Your task to perform on an android device: delete a single message in the gmail app Image 0: 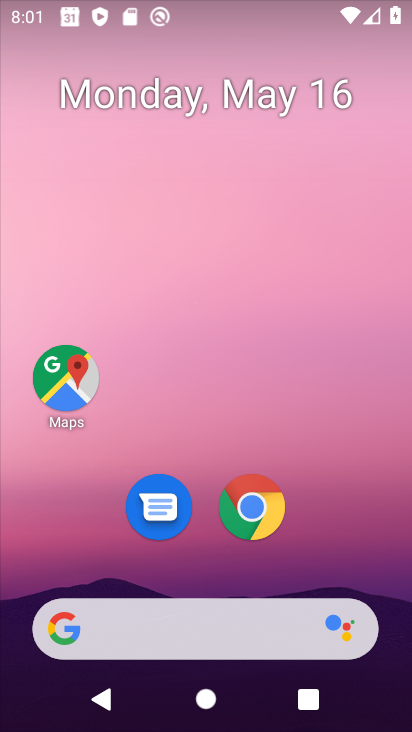
Step 0: drag from (324, 564) to (331, 214)
Your task to perform on an android device: delete a single message in the gmail app Image 1: 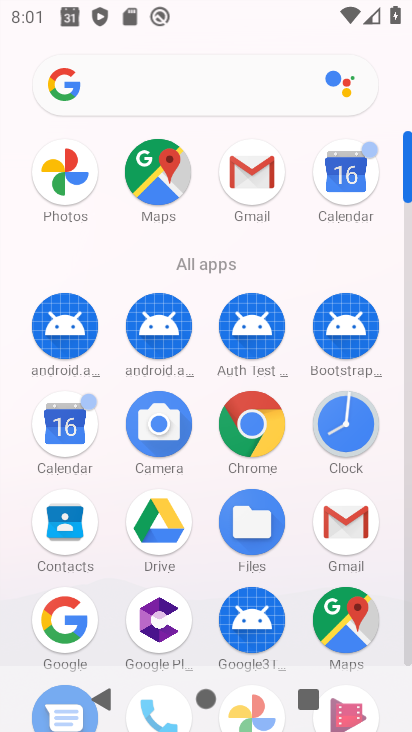
Step 1: click (257, 183)
Your task to perform on an android device: delete a single message in the gmail app Image 2: 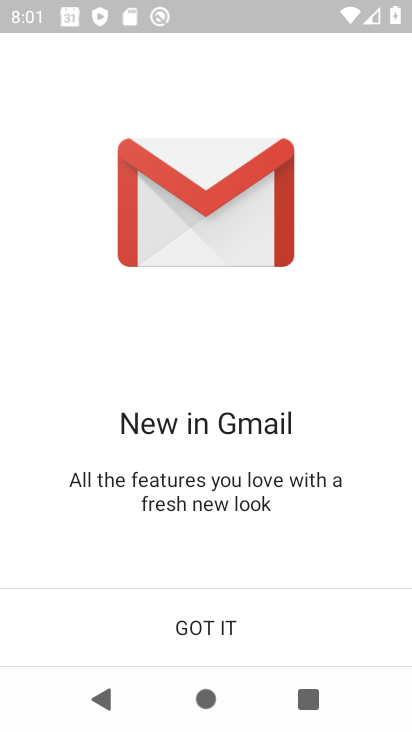
Step 2: click (201, 627)
Your task to perform on an android device: delete a single message in the gmail app Image 3: 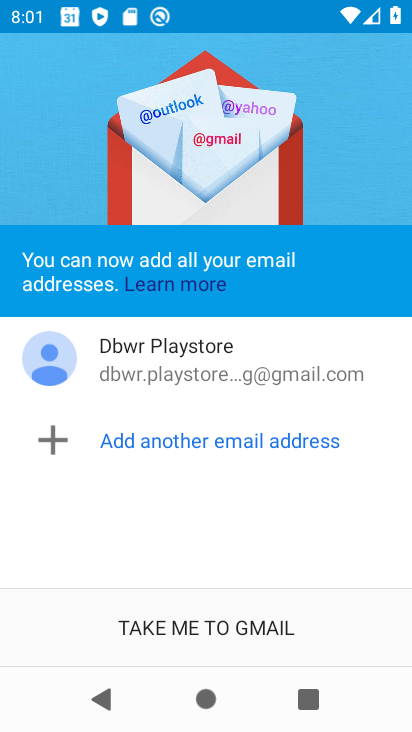
Step 3: click (201, 627)
Your task to perform on an android device: delete a single message in the gmail app Image 4: 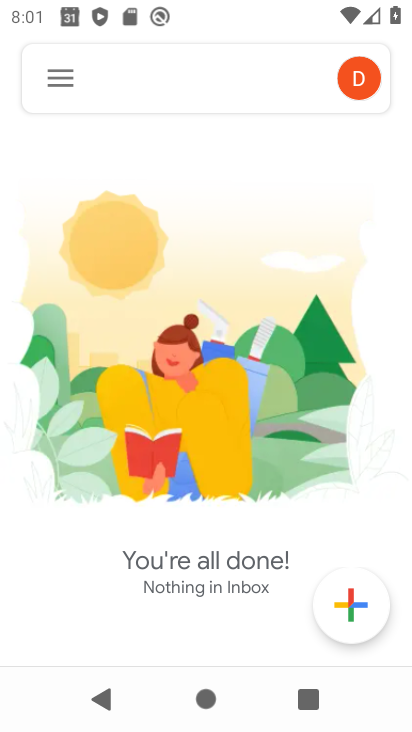
Step 4: click (56, 89)
Your task to perform on an android device: delete a single message in the gmail app Image 5: 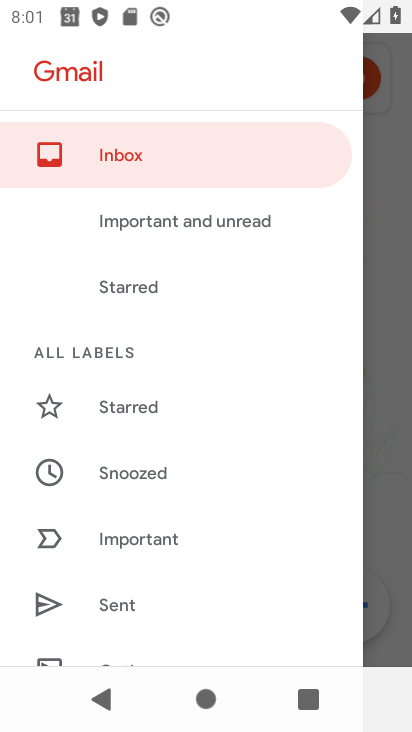
Step 5: drag from (205, 592) to (253, 187)
Your task to perform on an android device: delete a single message in the gmail app Image 6: 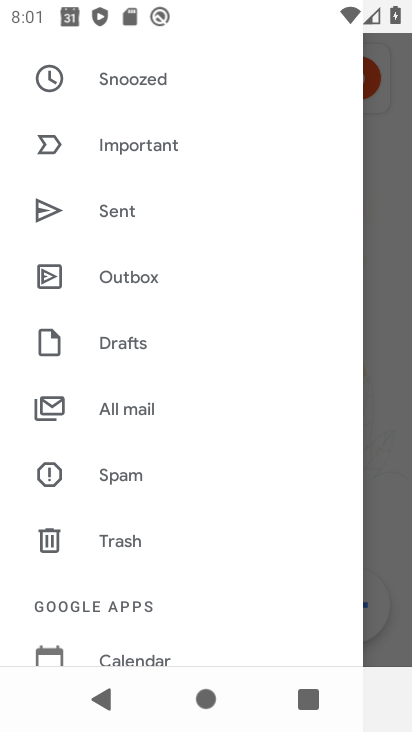
Step 6: click (121, 401)
Your task to perform on an android device: delete a single message in the gmail app Image 7: 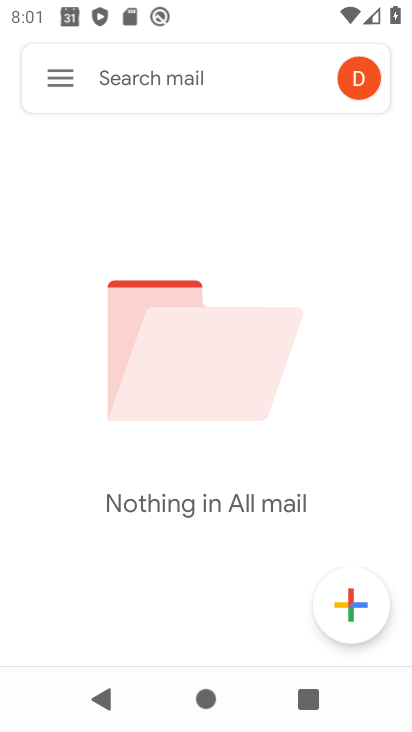
Step 7: task complete